Your task to perform on an android device: Go to Amazon Image 0: 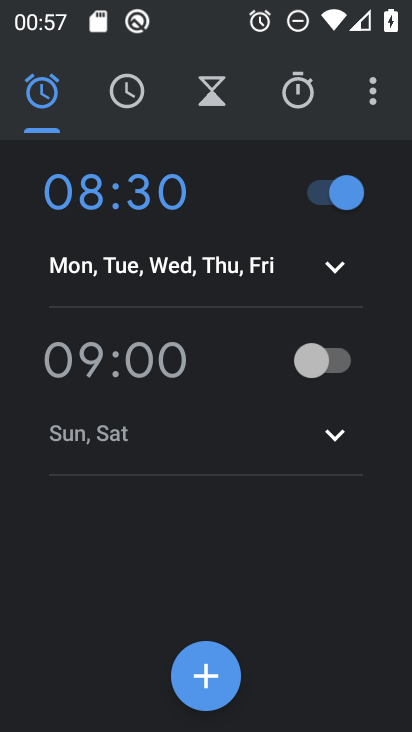
Step 0: press home button
Your task to perform on an android device: Go to Amazon Image 1: 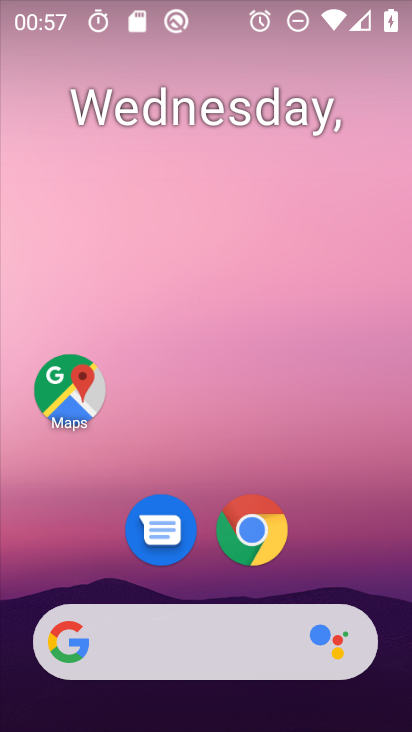
Step 1: drag from (292, 590) to (401, 2)
Your task to perform on an android device: Go to Amazon Image 2: 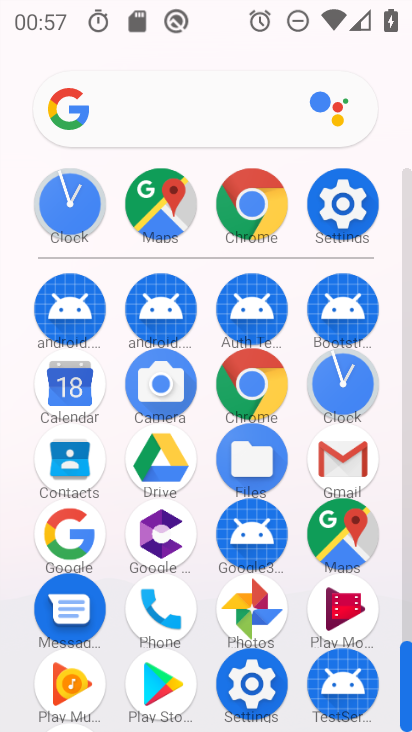
Step 2: click (270, 388)
Your task to perform on an android device: Go to Amazon Image 3: 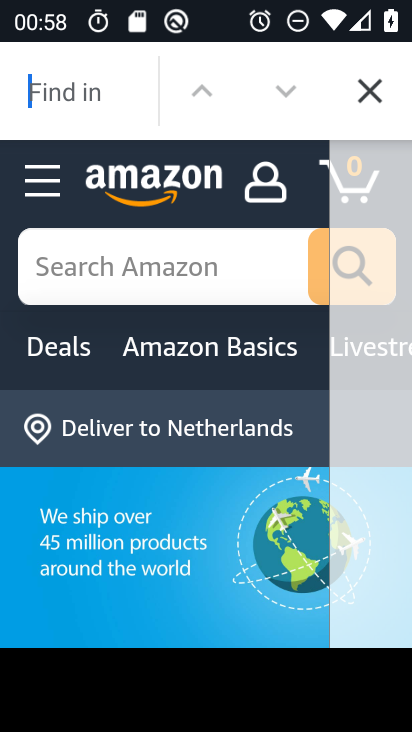
Step 3: task complete